Your task to perform on an android device: Open settings on Google Maps Image 0: 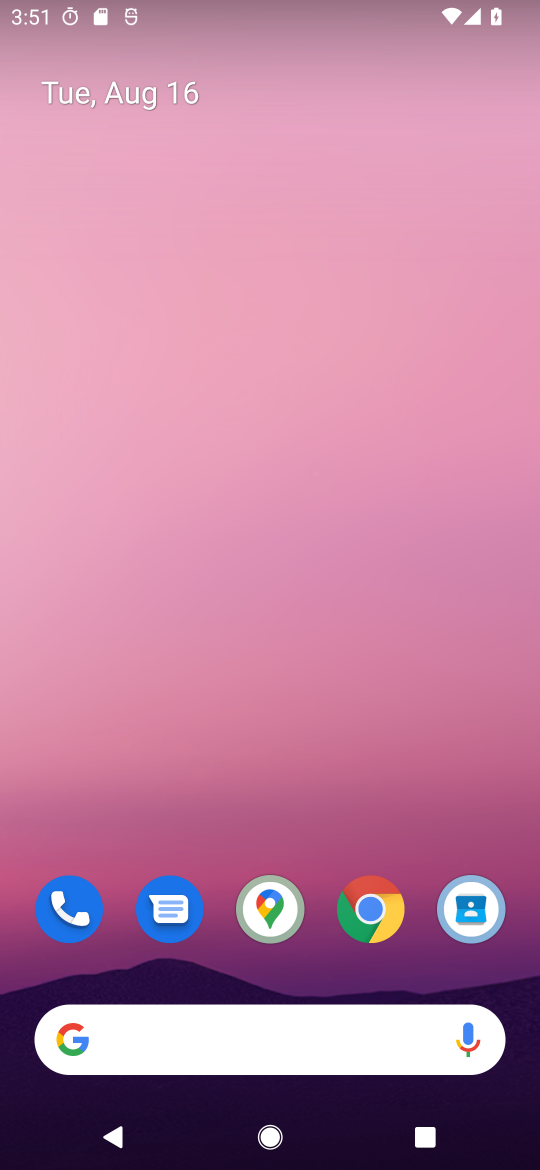
Step 0: click (270, 921)
Your task to perform on an android device: Open settings on Google Maps Image 1: 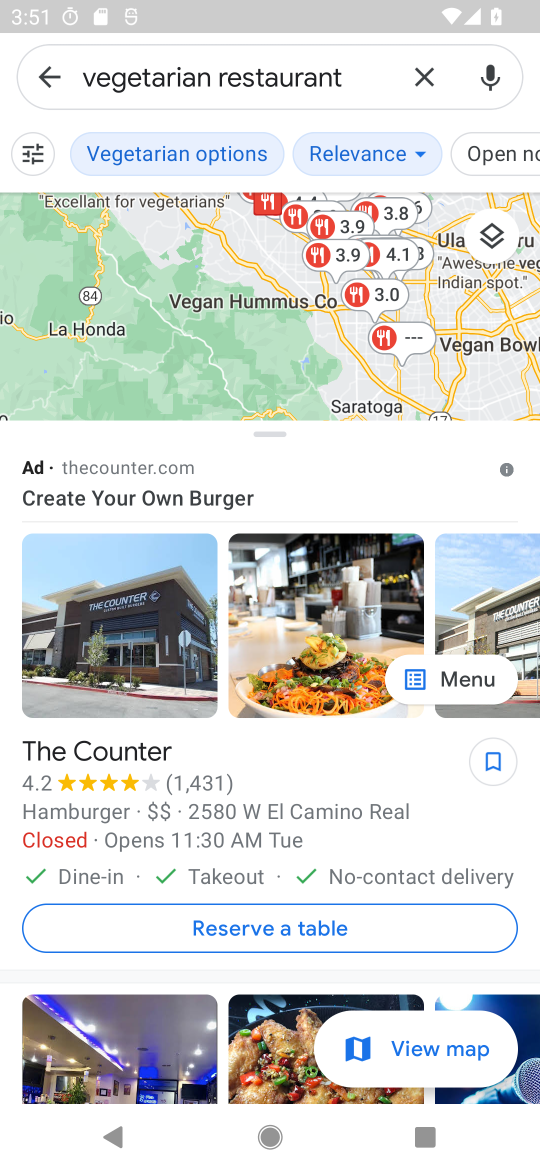
Step 1: click (41, 69)
Your task to perform on an android device: Open settings on Google Maps Image 2: 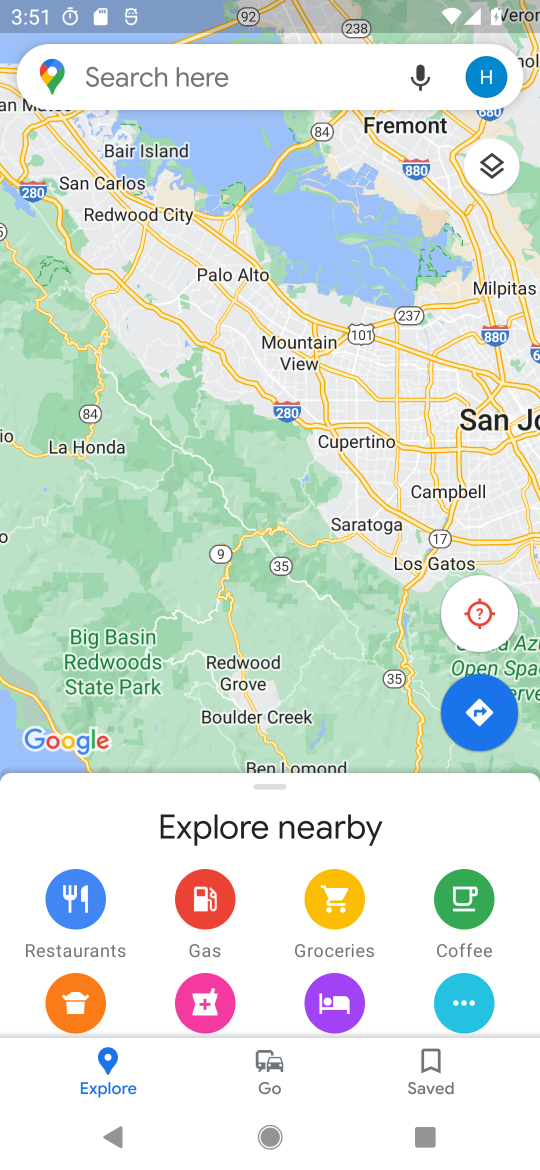
Step 2: click (479, 69)
Your task to perform on an android device: Open settings on Google Maps Image 3: 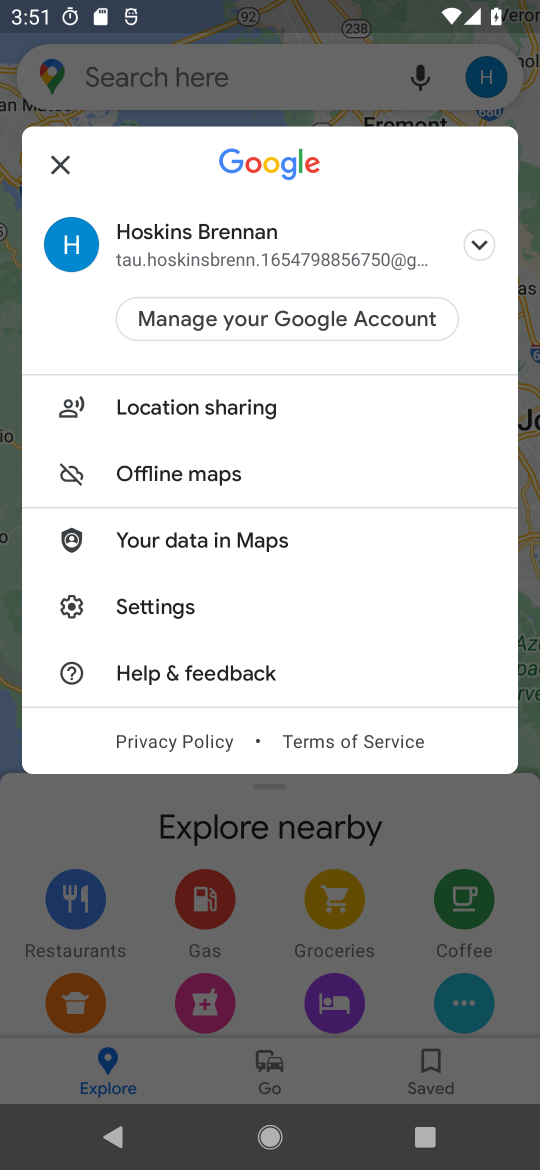
Step 3: click (159, 611)
Your task to perform on an android device: Open settings on Google Maps Image 4: 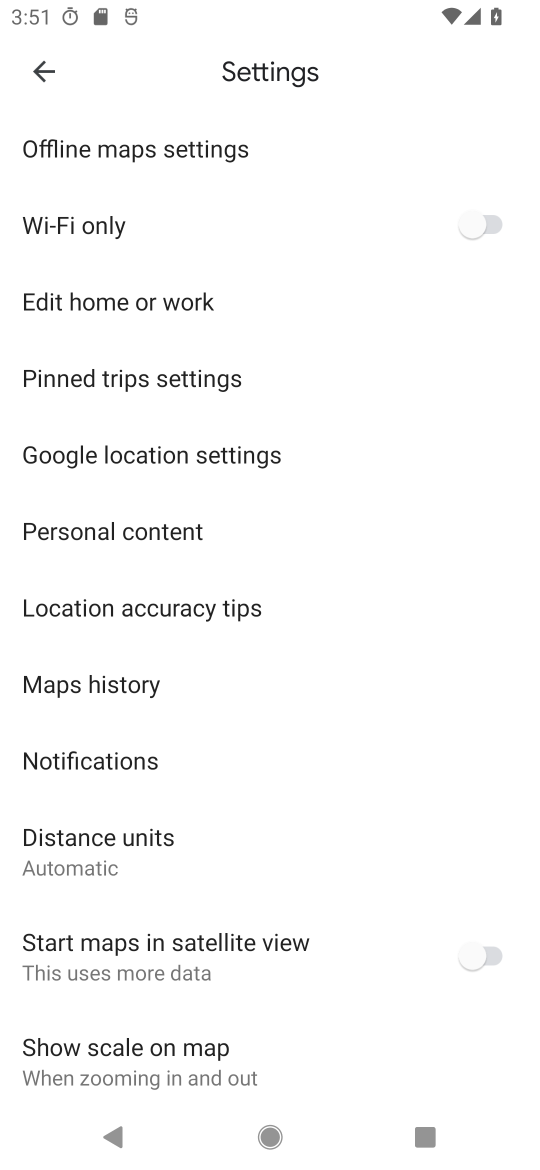
Step 4: task complete